Your task to perform on an android device: change keyboard looks Image 0: 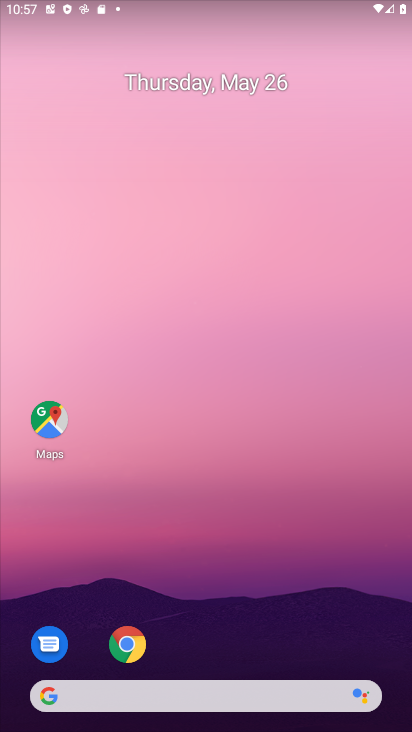
Step 0: drag from (345, 542) to (266, 207)
Your task to perform on an android device: change keyboard looks Image 1: 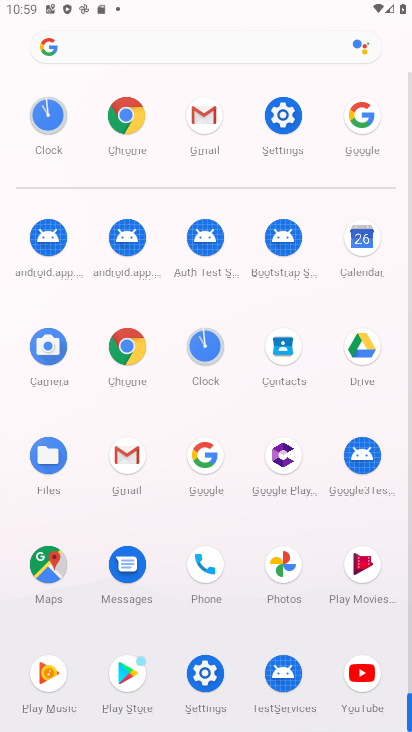
Step 1: click (208, 677)
Your task to perform on an android device: change keyboard looks Image 2: 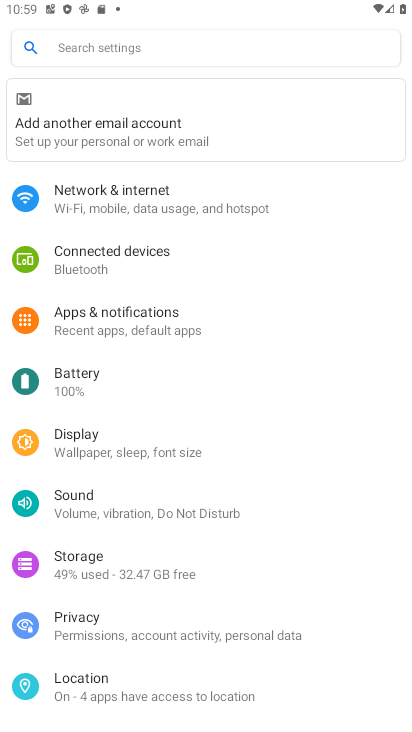
Step 2: drag from (146, 646) to (126, 4)
Your task to perform on an android device: change keyboard looks Image 3: 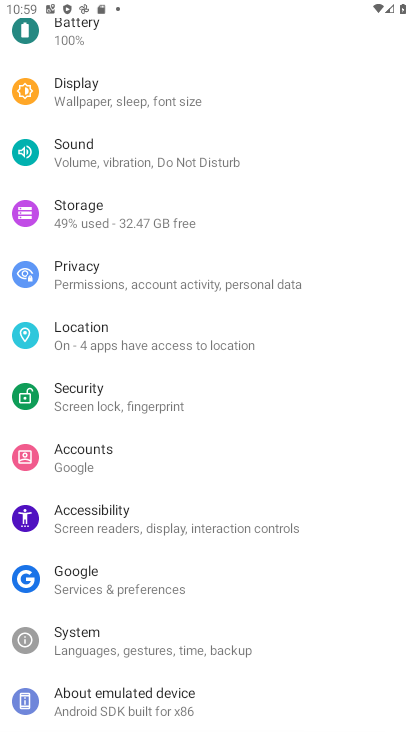
Step 3: click (121, 642)
Your task to perform on an android device: change keyboard looks Image 4: 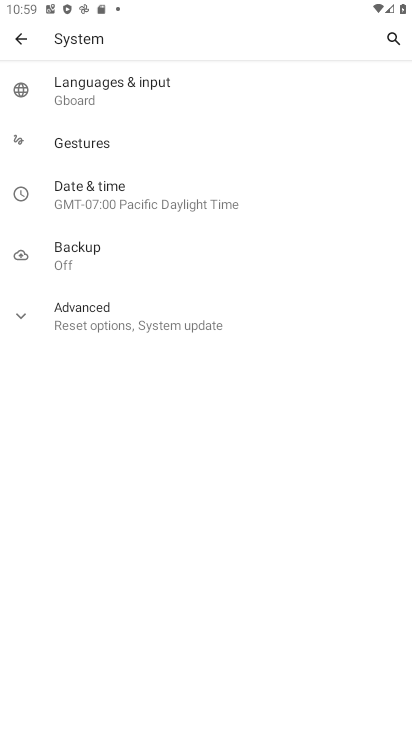
Step 4: click (114, 87)
Your task to perform on an android device: change keyboard looks Image 5: 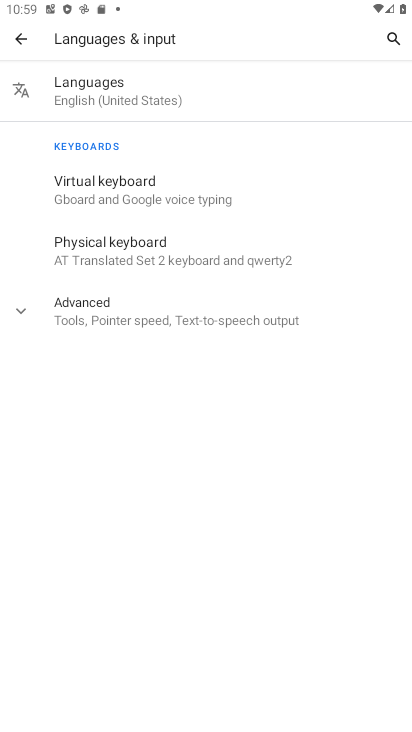
Step 5: click (112, 188)
Your task to perform on an android device: change keyboard looks Image 6: 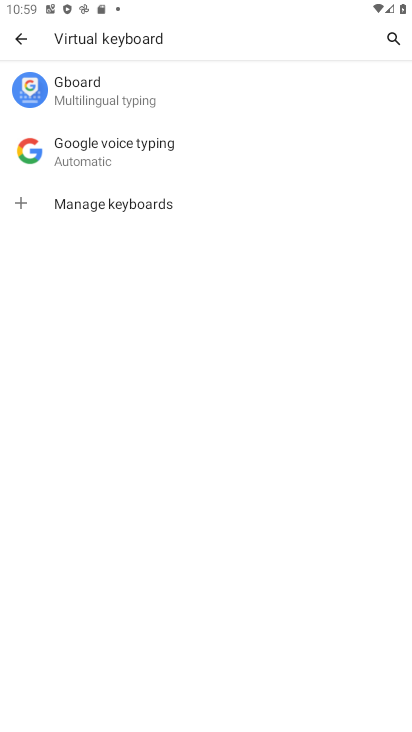
Step 6: click (109, 75)
Your task to perform on an android device: change keyboard looks Image 7: 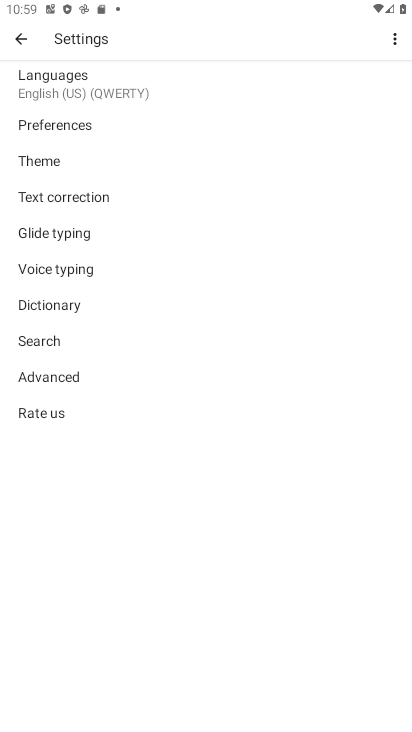
Step 7: click (59, 162)
Your task to perform on an android device: change keyboard looks Image 8: 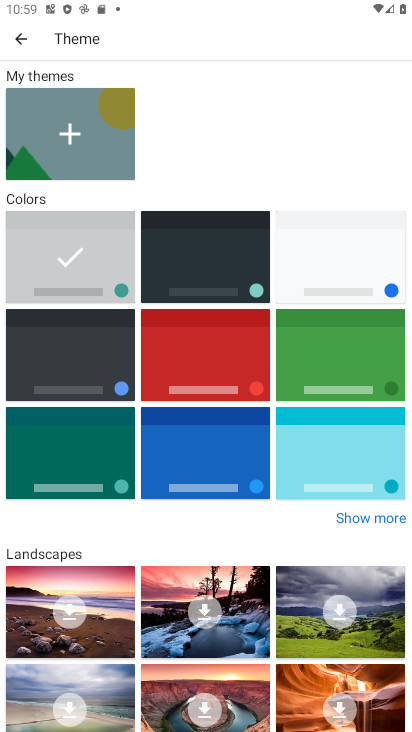
Step 8: click (218, 266)
Your task to perform on an android device: change keyboard looks Image 9: 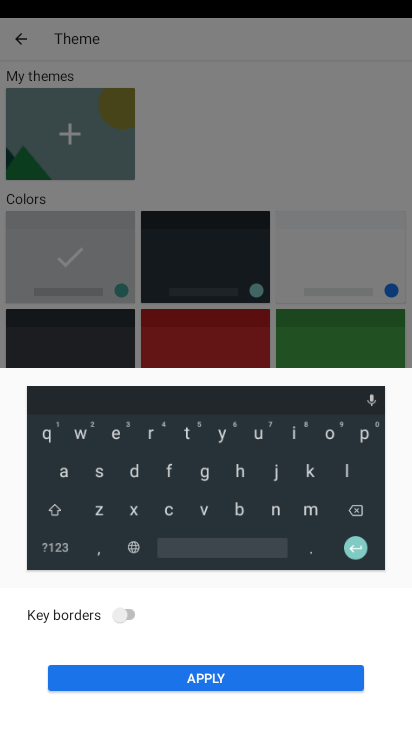
Step 9: click (220, 685)
Your task to perform on an android device: change keyboard looks Image 10: 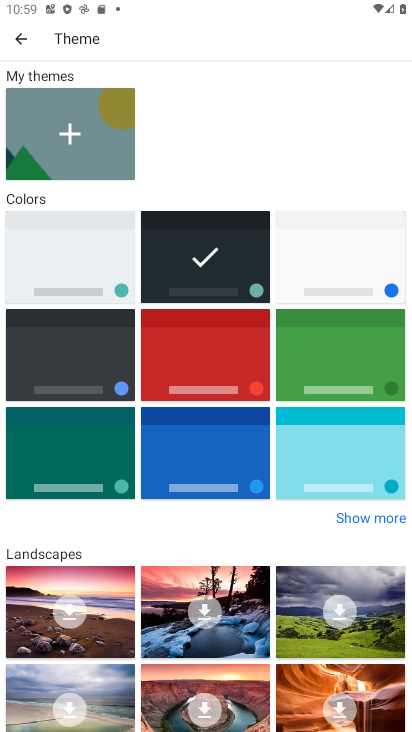
Step 10: task complete